Your task to perform on an android device: toggle sleep mode Image 0: 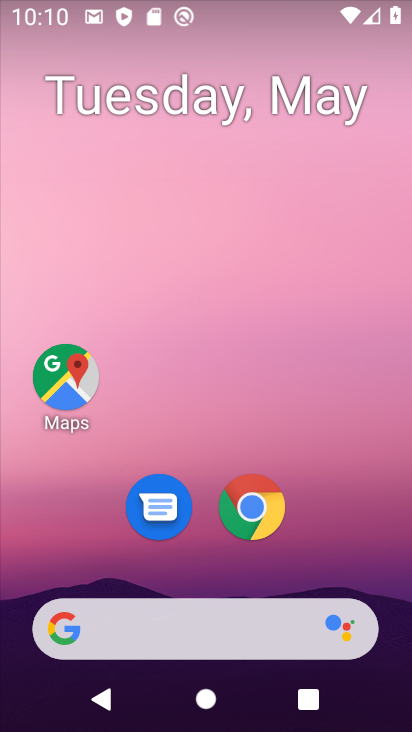
Step 0: drag from (333, 421) to (246, 82)
Your task to perform on an android device: toggle sleep mode Image 1: 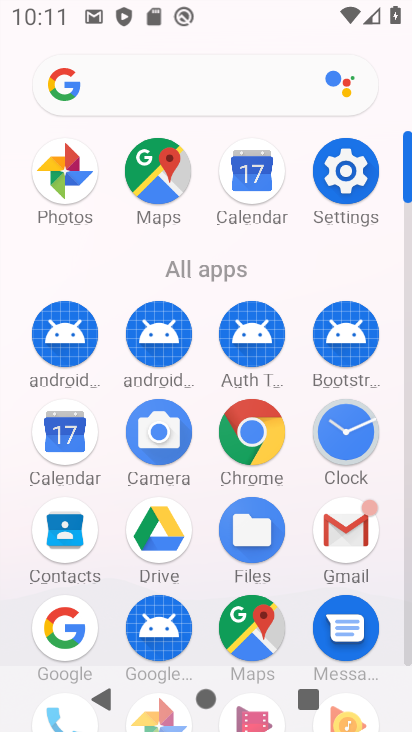
Step 1: click (341, 173)
Your task to perform on an android device: toggle sleep mode Image 2: 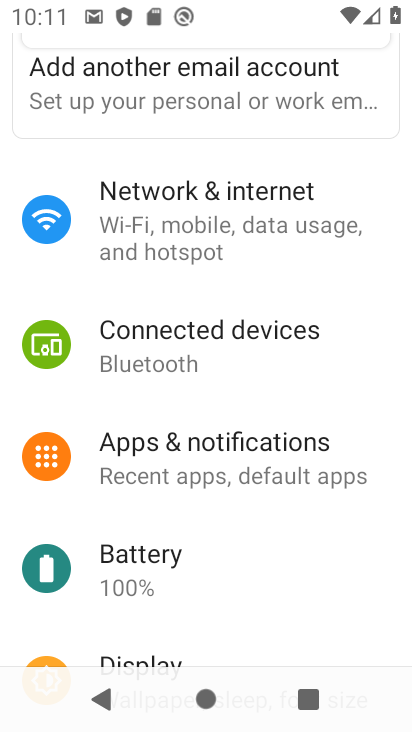
Step 2: drag from (243, 512) to (179, 233)
Your task to perform on an android device: toggle sleep mode Image 3: 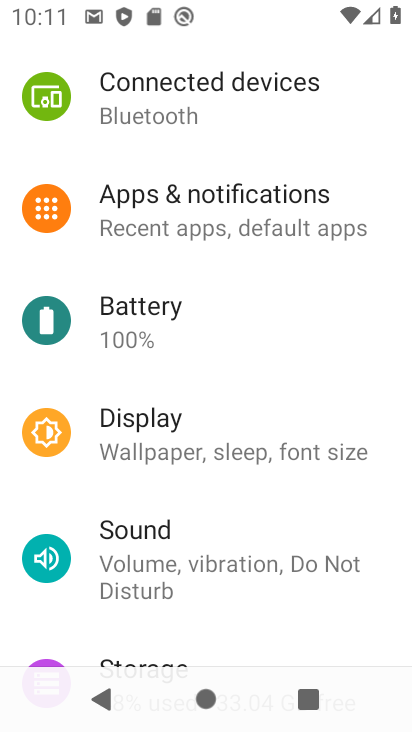
Step 3: click (162, 428)
Your task to perform on an android device: toggle sleep mode Image 4: 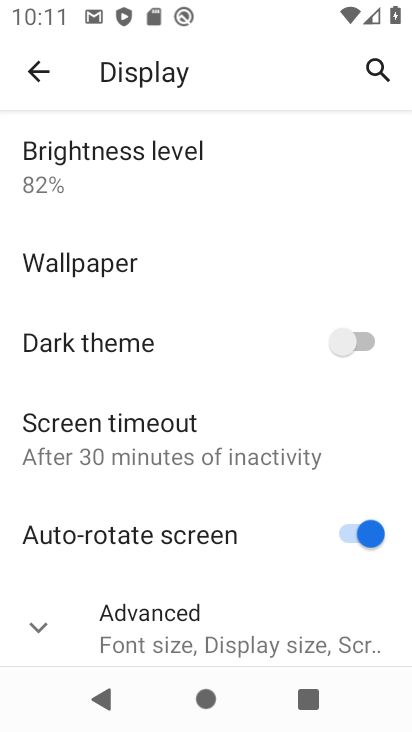
Step 4: task complete